Your task to perform on an android device: toggle notification dots Image 0: 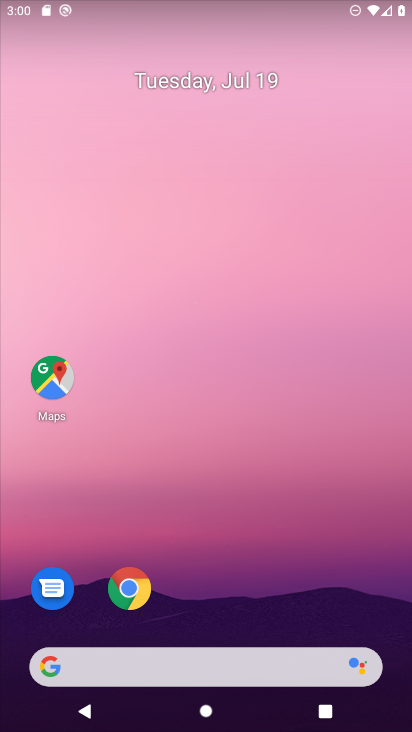
Step 0: drag from (204, 584) to (202, 120)
Your task to perform on an android device: toggle notification dots Image 1: 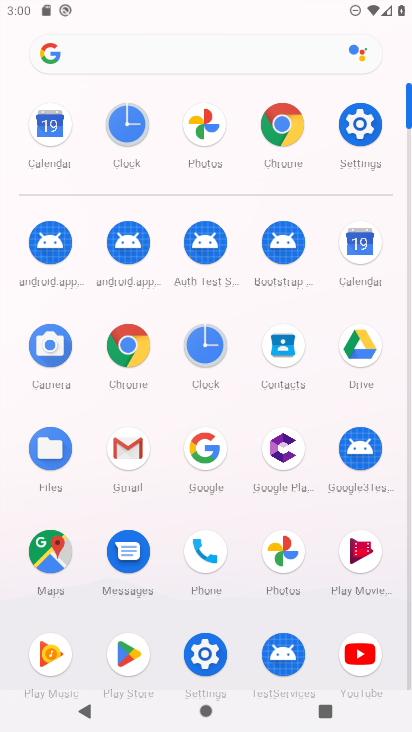
Step 1: click (366, 126)
Your task to perform on an android device: toggle notification dots Image 2: 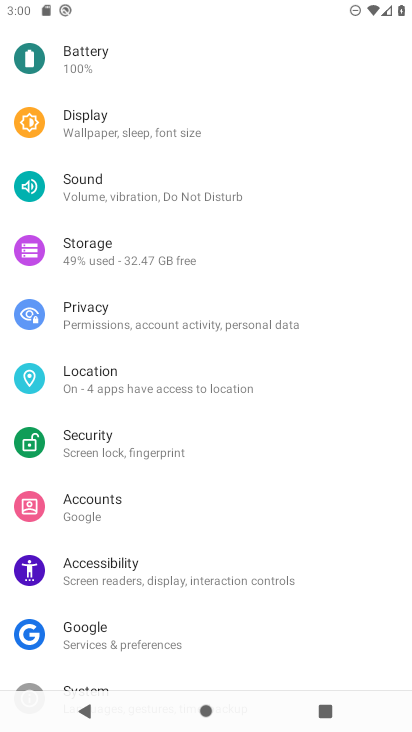
Step 2: drag from (132, 579) to (132, 403)
Your task to perform on an android device: toggle notification dots Image 3: 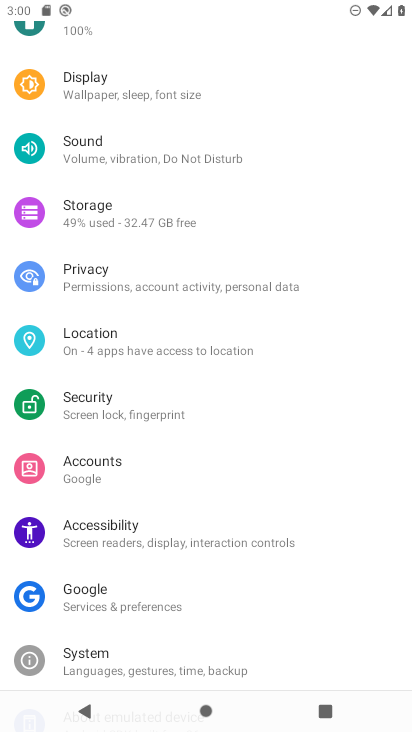
Step 3: drag from (133, 184) to (136, 441)
Your task to perform on an android device: toggle notification dots Image 4: 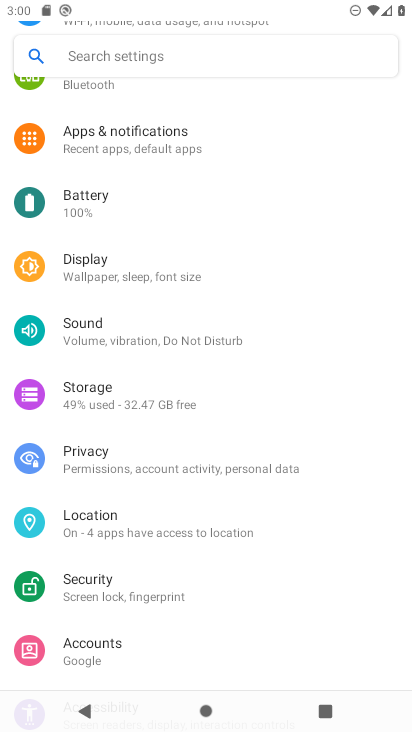
Step 4: click (112, 138)
Your task to perform on an android device: toggle notification dots Image 5: 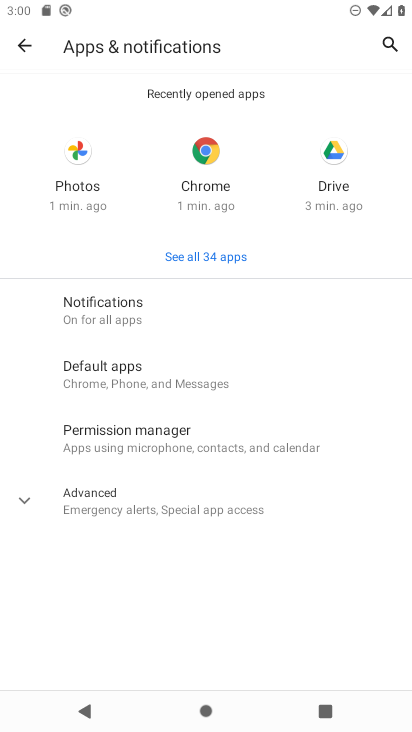
Step 5: click (93, 509)
Your task to perform on an android device: toggle notification dots Image 6: 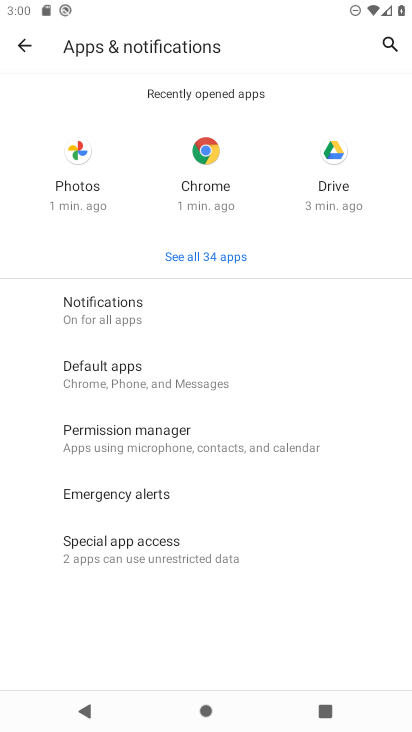
Step 6: click (111, 317)
Your task to perform on an android device: toggle notification dots Image 7: 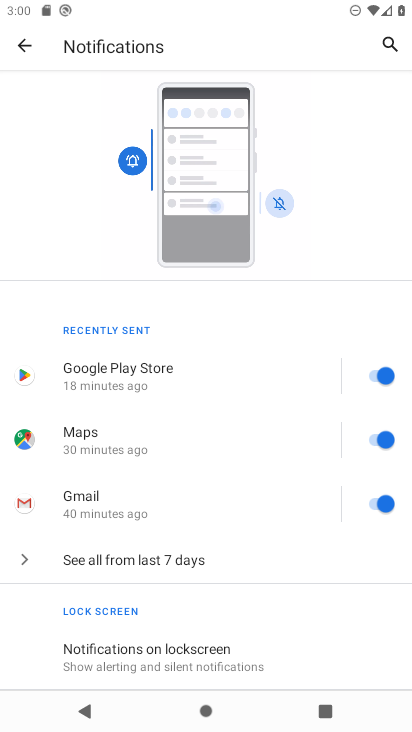
Step 7: drag from (180, 575) to (192, 370)
Your task to perform on an android device: toggle notification dots Image 8: 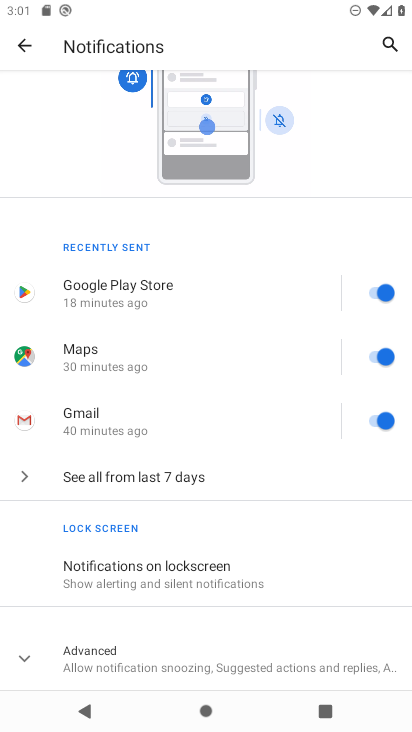
Step 8: click (126, 660)
Your task to perform on an android device: toggle notification dots Image 9: 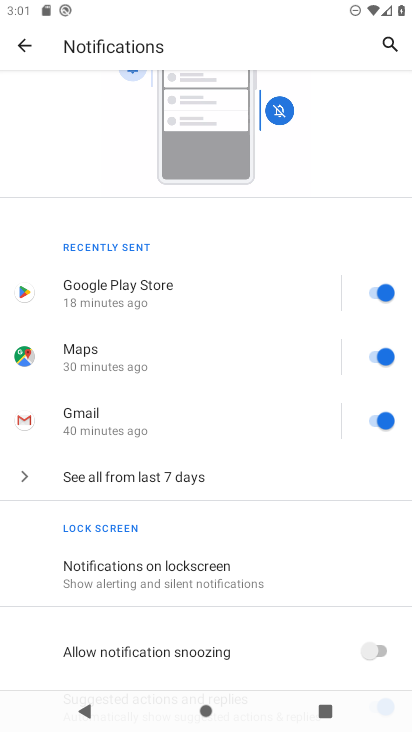
Step 9: drag from (165, 650) to (178, 477)
Your task to perform on an android device: toggle notification dots Image 10: 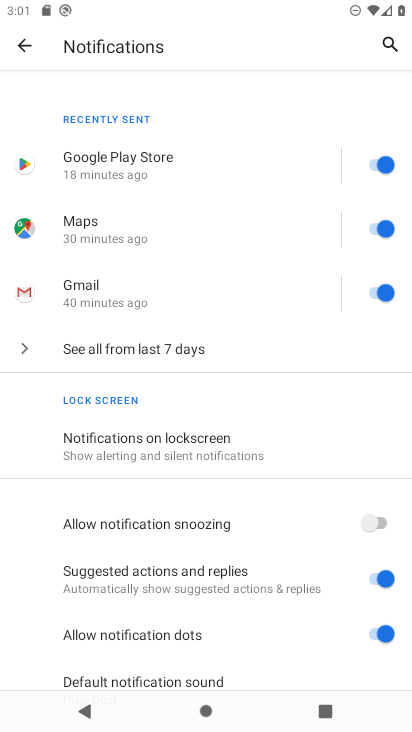
Step 10: click (374, 632)
Your task to perform on an android device: toggle notification dots Image 11: 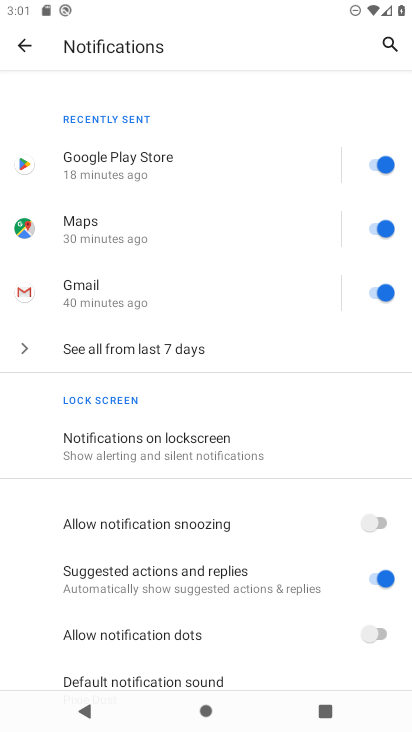
Step 11: task complete